Your task to perform on an android device: turn on the 24-hour format for clock Image 0: 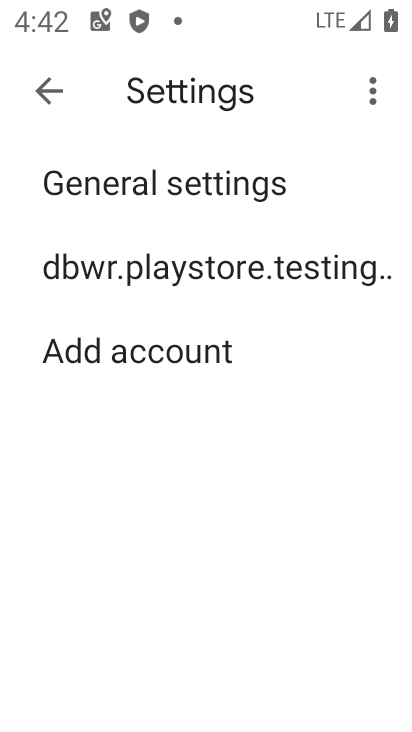
Step 0: press home button
Your task to perform on an android device: turn on the 24-hour format for clock Image 1: 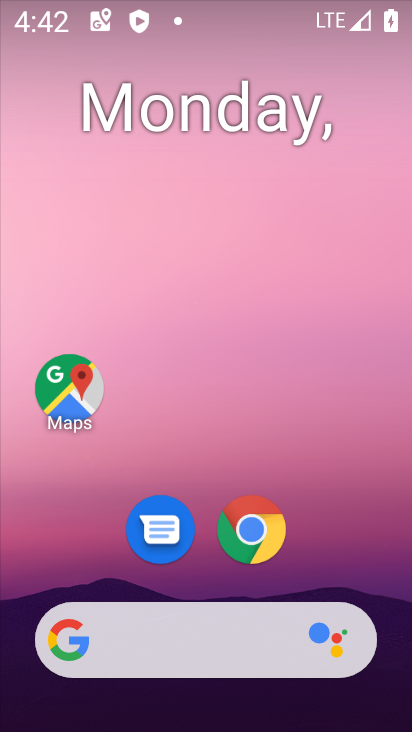
Step 1: drag from (391, 612) to (228, 8)
Your task to perform on an android device: turn on the 24-hour format for clock Image 2: 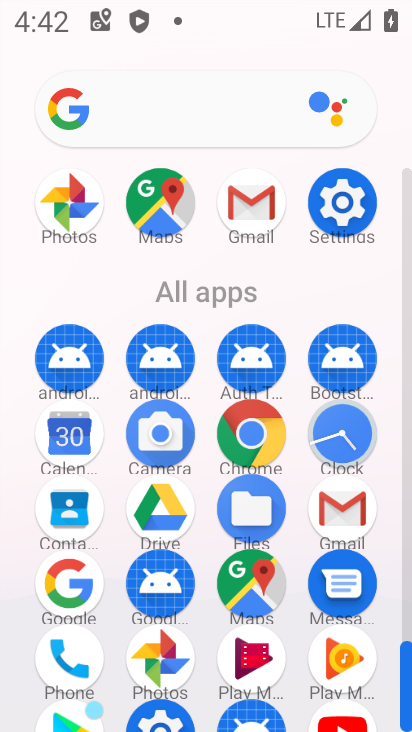
Step 2: click (356, 416)
Your task to perform on an android device: turn on the 24-hour format for clock Image 3: 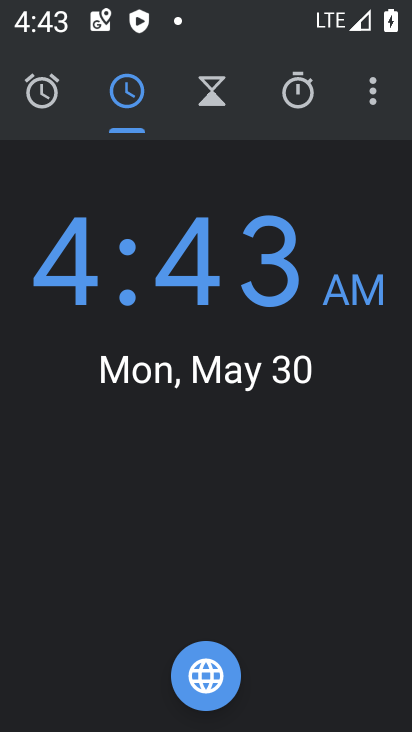
Step 3: click (382, 87)
Your task to perform on an android device: turn on the 24-hour format for clock Image 4: 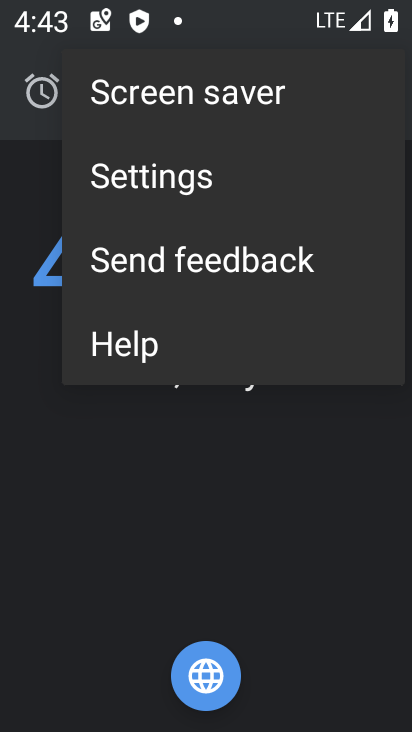
Step 4: click (281, 158)
Your task to perform on an android device: turn on the 24-hour format for clock Image 5: 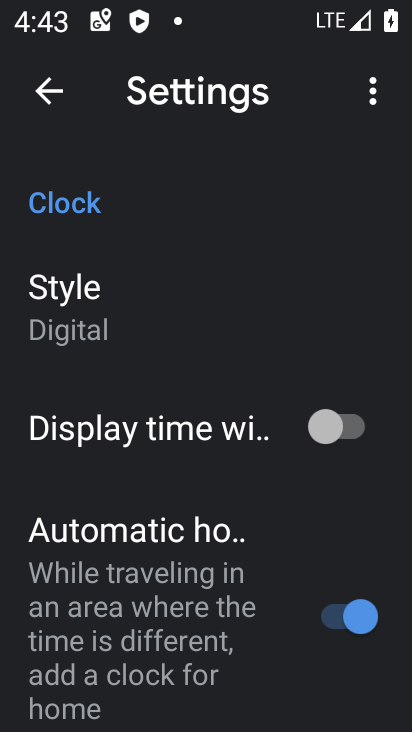
Step 5: drag from (278, 660) to (209, 86)
Your task to perform on an android device: turn on the 24-hour format for clock Image 6: 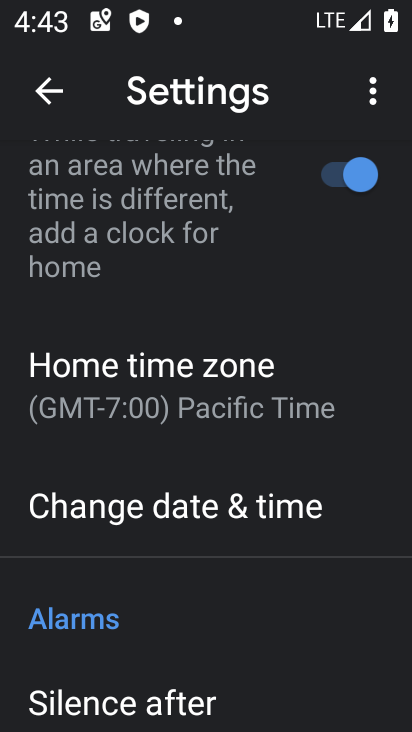
Step 6: click (275, 503)
Your task to perform on an android device: turn on the 24-hour format for clock Image 7: 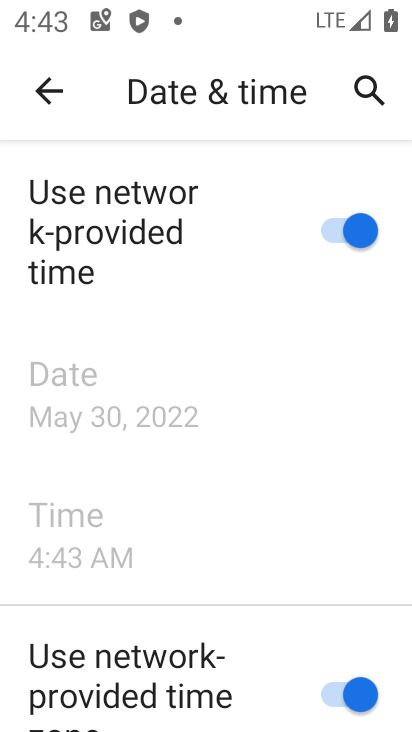
Step 7: drag from (280, 621) to (197, 82)
Your task to perform on an android device: turn on the 24-hour format for clock Image 8: 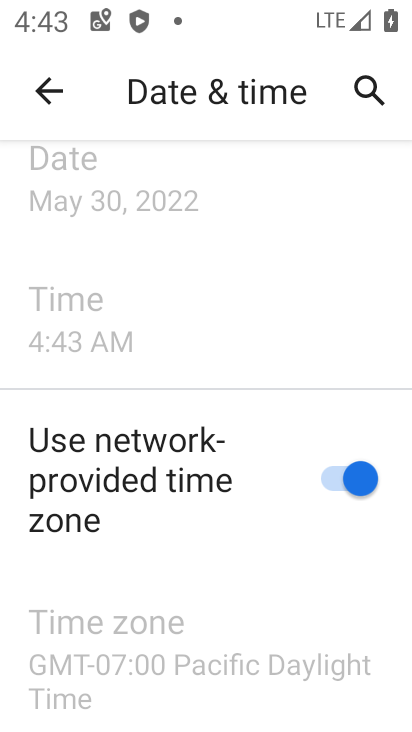
Step 8: drag from (207, 569) to (167, 110)
Your task to perform on an android device: turn on the 24-hour format for clock Image 9: 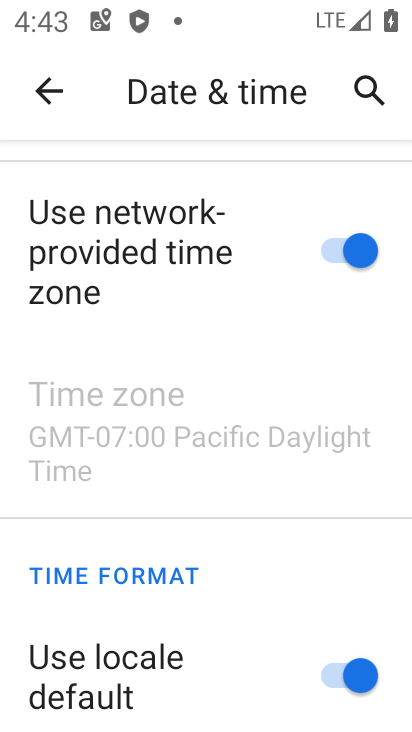
Step 9: drag from (231, 658) to (215, 56)
Your task to perform on an android device: turn on the 24-hour format for clock Image 10: 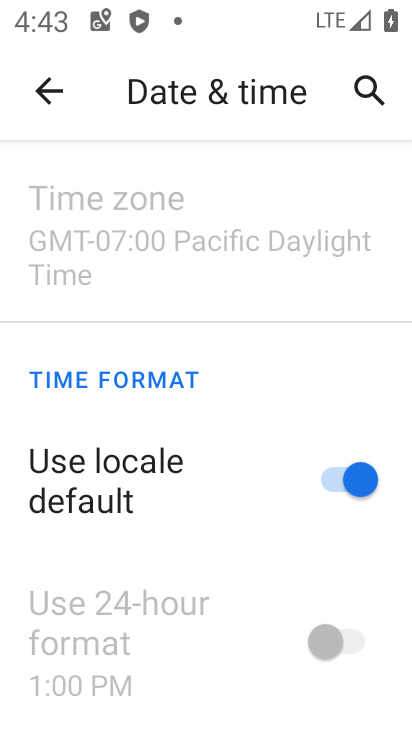
Step 10: click (348, 481)
Your task to perform on an android device: turn on the 24-hour format for clock Image 11: 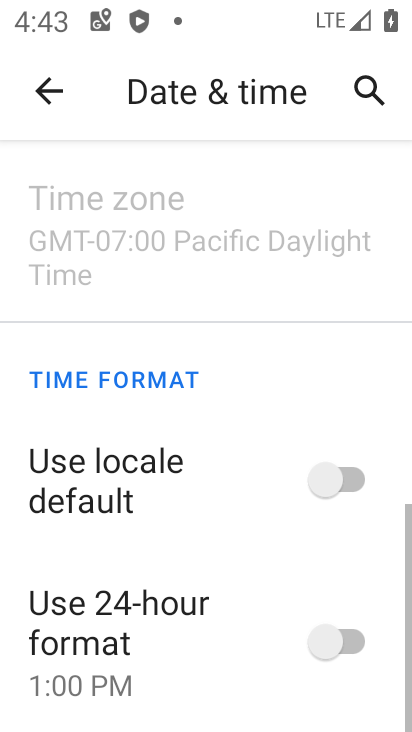
Step 11: click (341, 658)
Your task to perform on an android device: turn on the 24-hour format for clock Image 12: 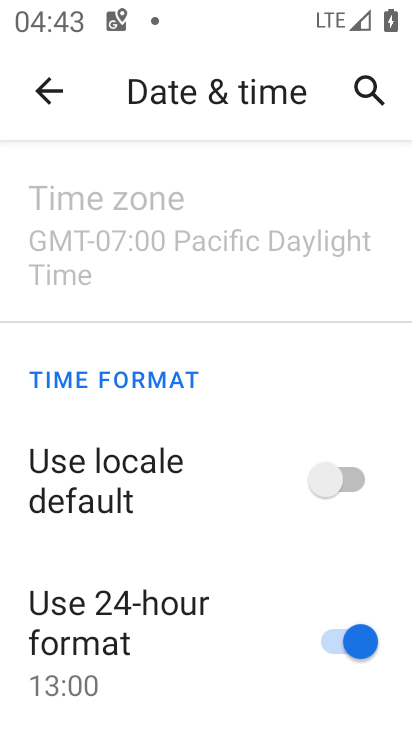
Step 12: task complete